Your task to perform on an android device: Go to location settings Image 0: 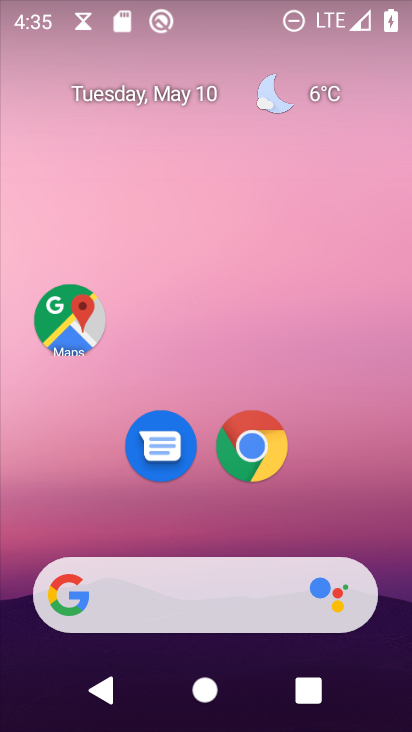
Step 0: drag from (310, 508) to (258, 68)
Your task to perform on an android device: Go to location settings Image 1: 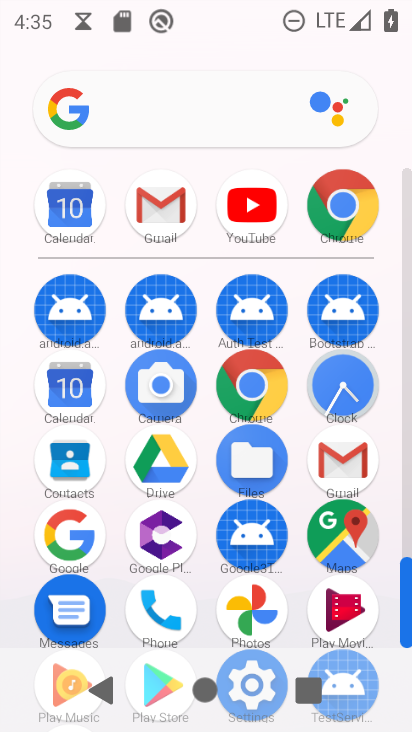
Step 1: drag from (221, 644) to (220, 308)
Your task to perform on an android device: Go to location settings Image 2: 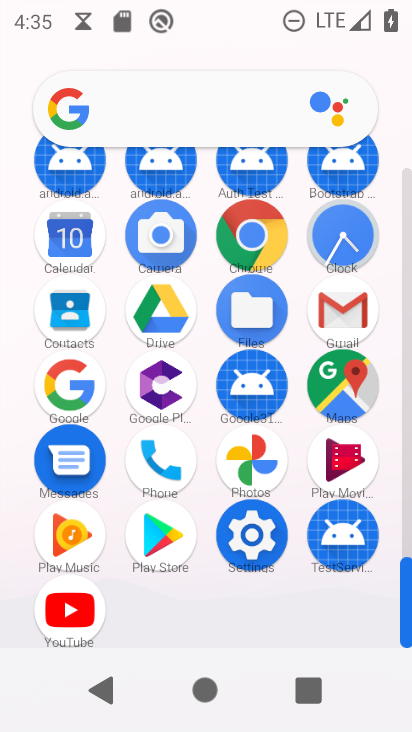
Step 2: click (252, 551)
Your task to perform on an android device: Go to location settings Image 3: 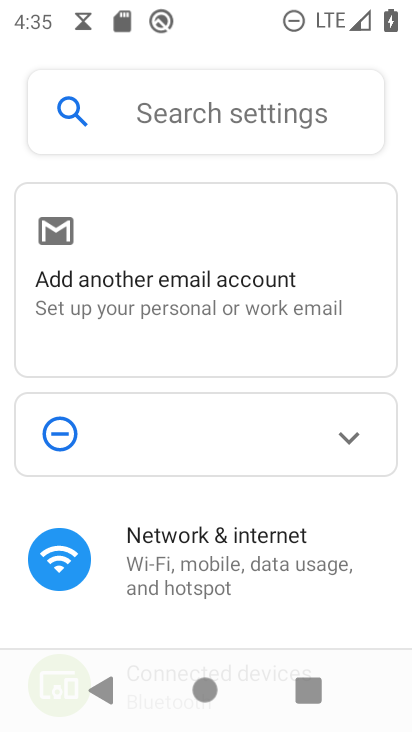
Step 3: drag from (223, 567) to (207, 202)
Your task to perform on an android device: Go to location settings Image 4: 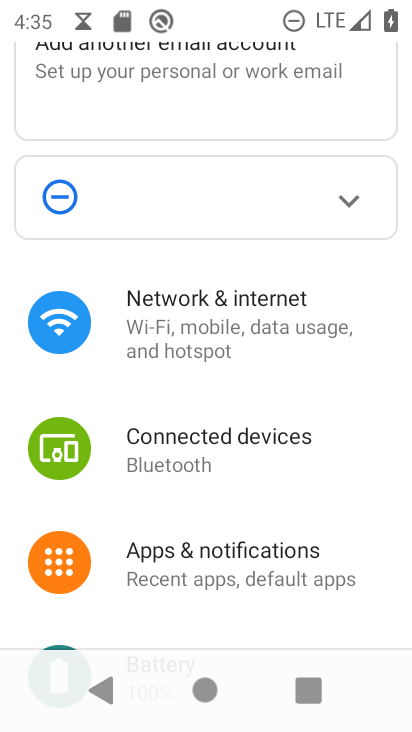
Step 4: drag from (206, 543) to (198, 140)
Your task to perform on an android device: Go to location settings Image 5: 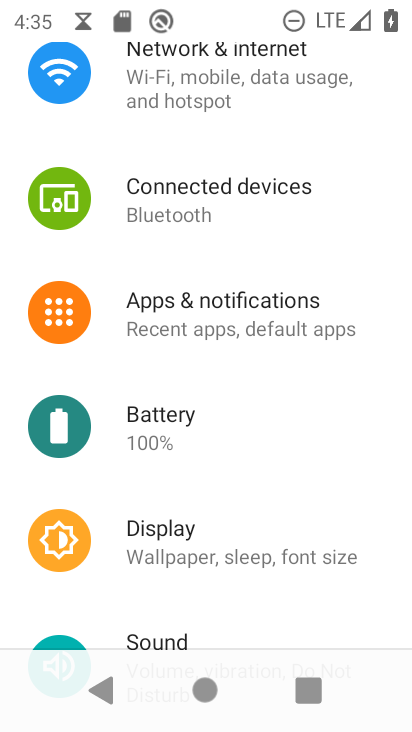
Step 5: drag from (234, 459) to (230, 186)
Your task to perform on an android device: Go to location settings Image 6: 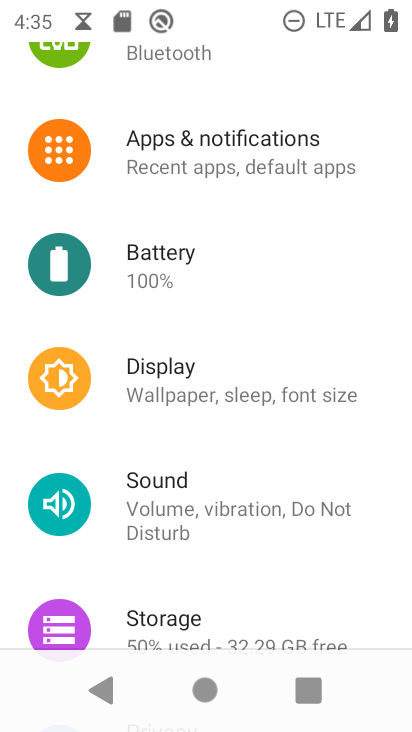
Step 6: drag from (222, 547) to (230, 281)
Your task to perform on an android device: Go to location settings Image 7: 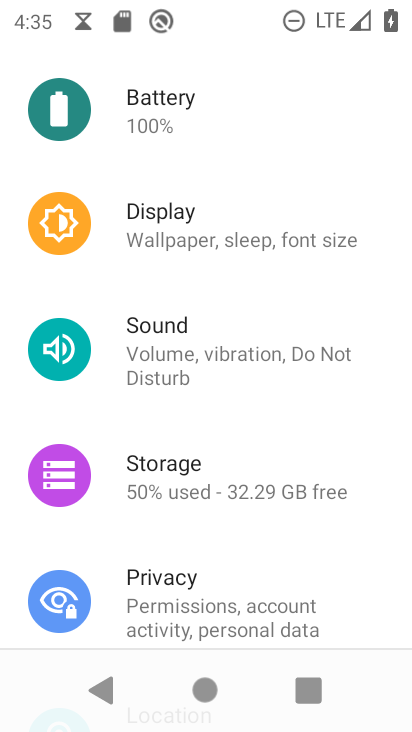
Step 7: drag from (216, 519) to (201, 134)
Your task to perform on an android device: Go to location settings Image 8: 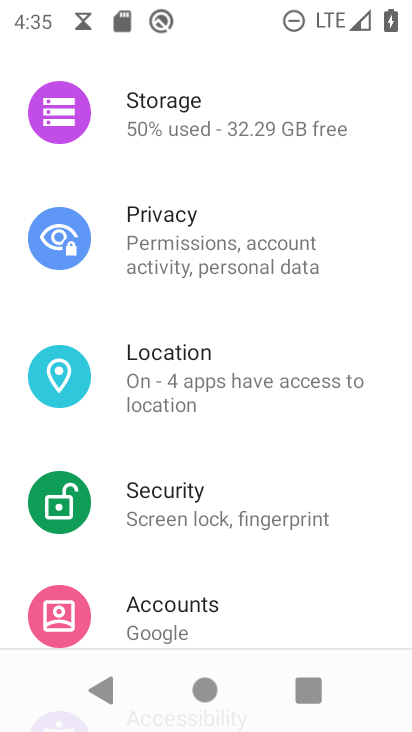
Step 8: click (177, 380)
Your task to perform on an android device: Go to location settings Image 9: 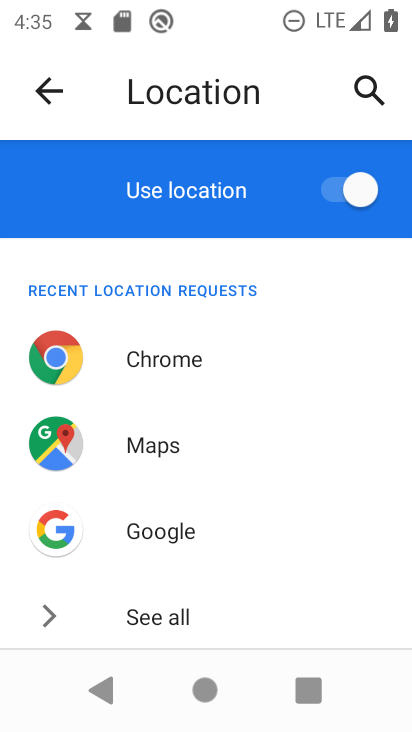
Step 9: task complete